Your task to perform on an android device: Search for hotels in NYC Image 0: 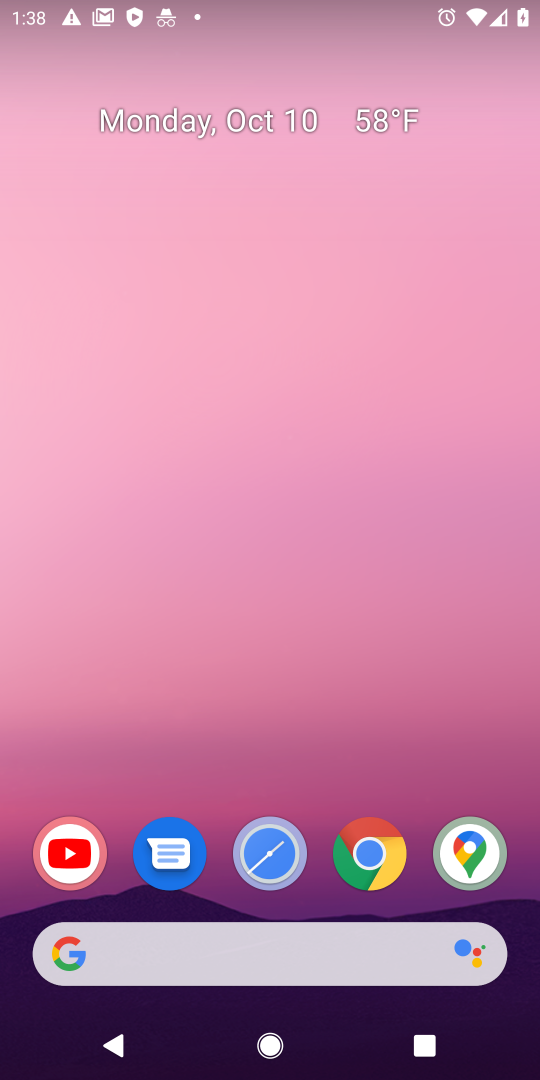
Step 0: click (355, 841)
Your task to perform on an android device: Search for hotels in NYC Image 1: 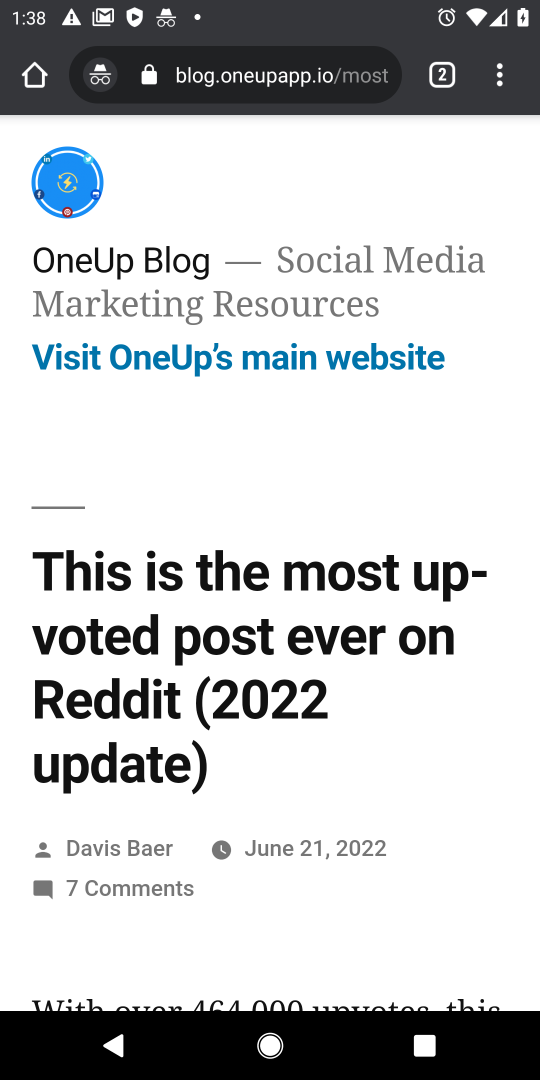
Step 1: click (306, 96)
Your task to perform on an android device: Search for hotels in NYC Image 2: 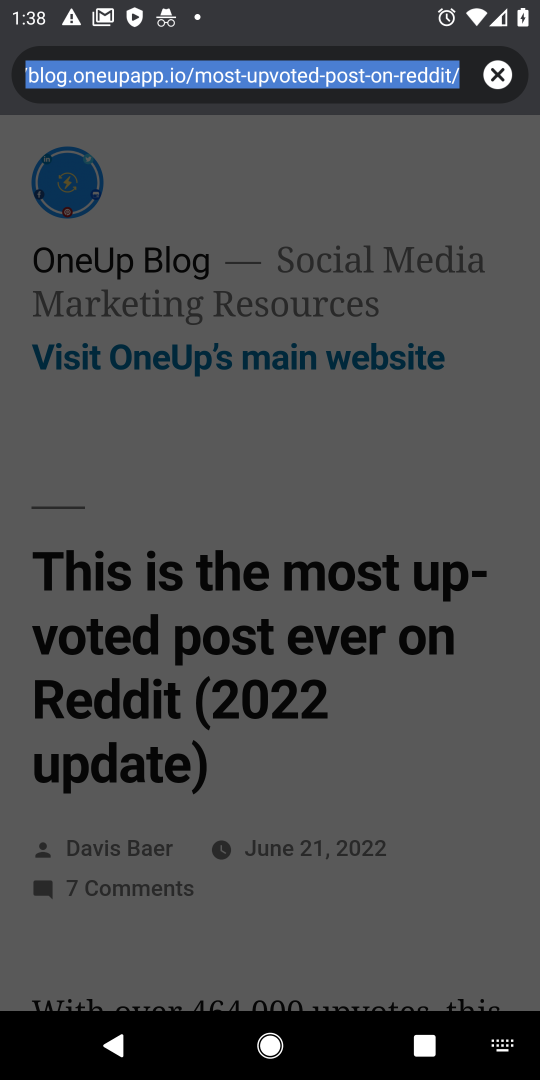
Step 2: type "hotels in nyc"
Your task to perform on an android device: Search for hotels in NYC Image 3: 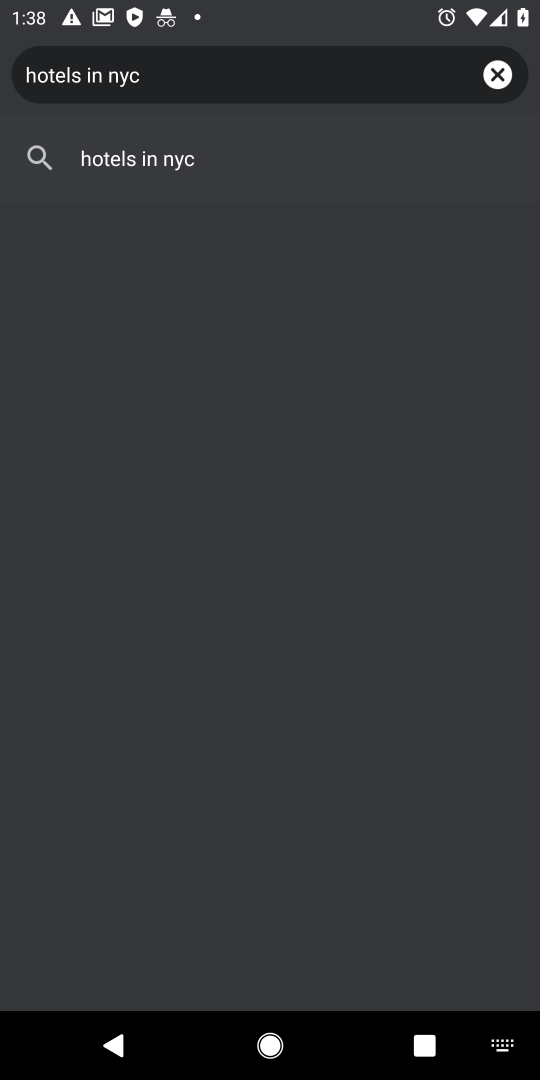
Step 3: click (118, 155)
Your task to perform on an android device: Search for hotels in NYC Image 4: 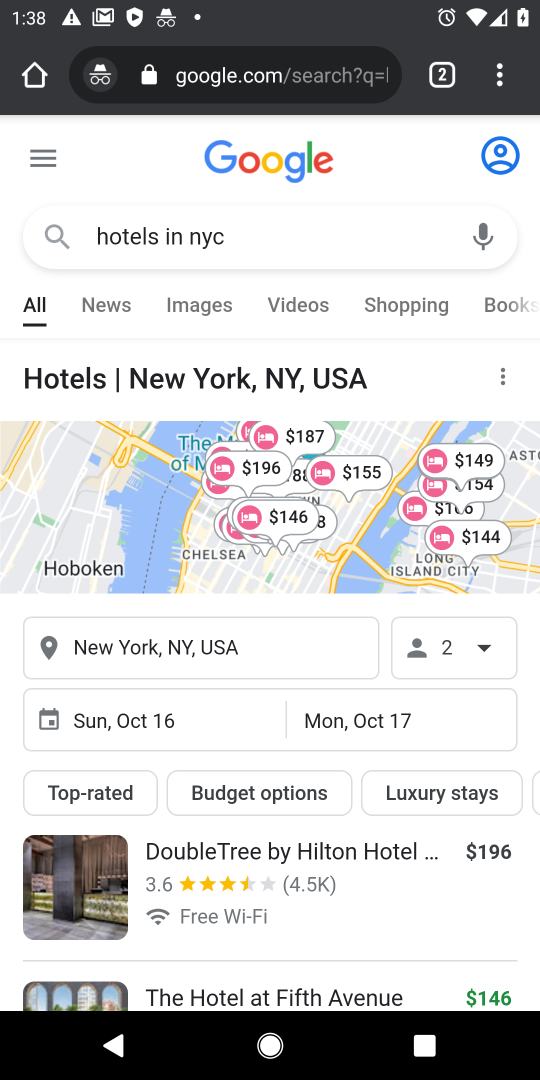
Step 4: task complete